Your task to perform on an android device: Open Amazon Image 0: 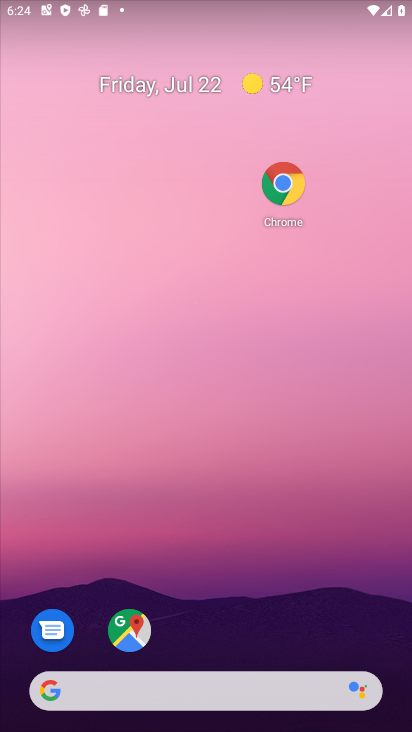
Step 0: click (280, 178)
Your task to perform on an android device: Open Amazon Image 1: 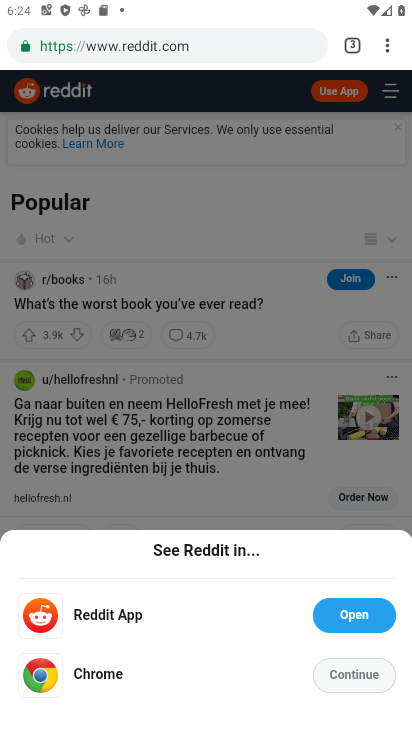
Step 1: click (356, 51)
Your task to perform on an android device: Open Amazon Image 2: 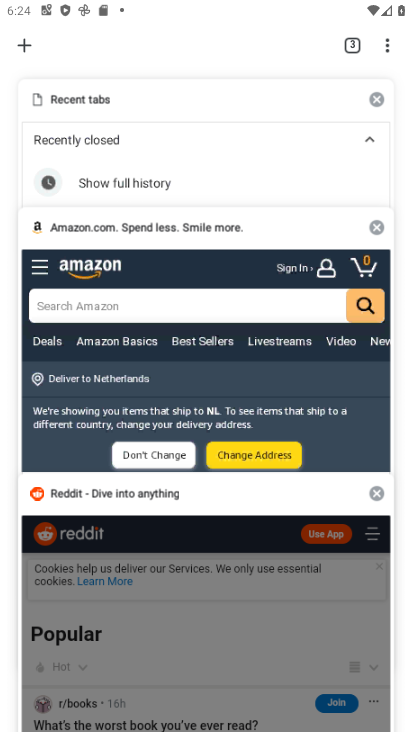
Step 2: click (380, 499)
Your task to perform on an android device: Open Amazon Image 3: 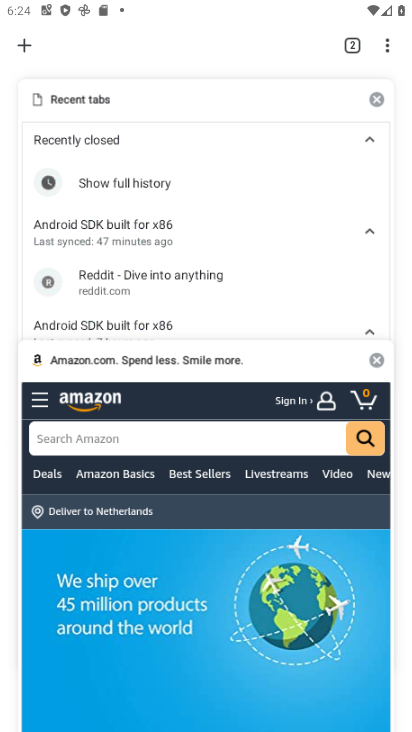
Step 3: click (373, 95)
Your task to perform on an android device: Open Amazon Image 4: 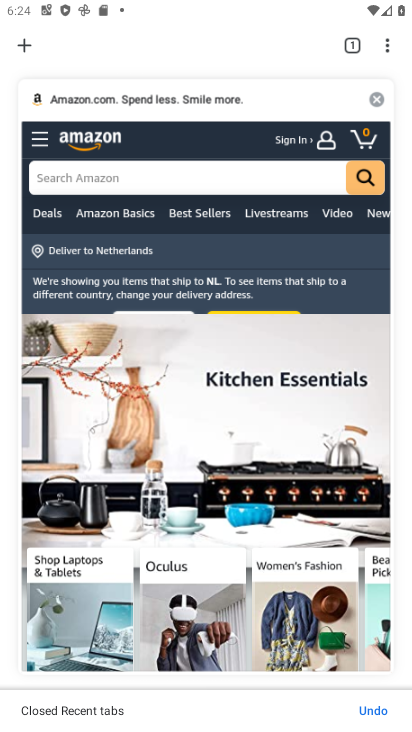
Step 4: click (304, 103)
Your task to perform on an android device: Open Amazon Image 5: 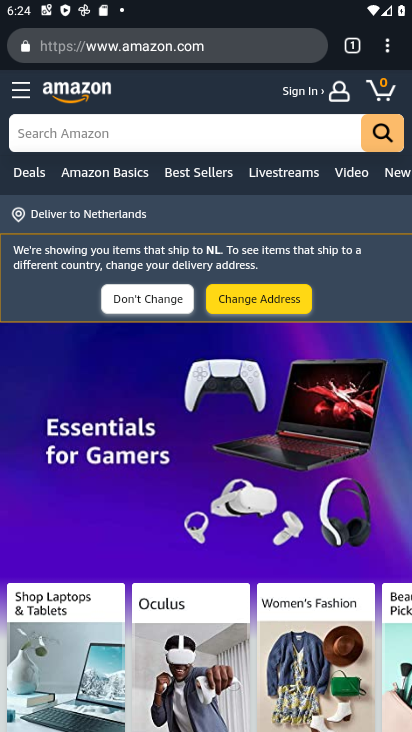
Step 5: task complete